Your task to perform on an android device: find which apps use the phone's location Image 0: 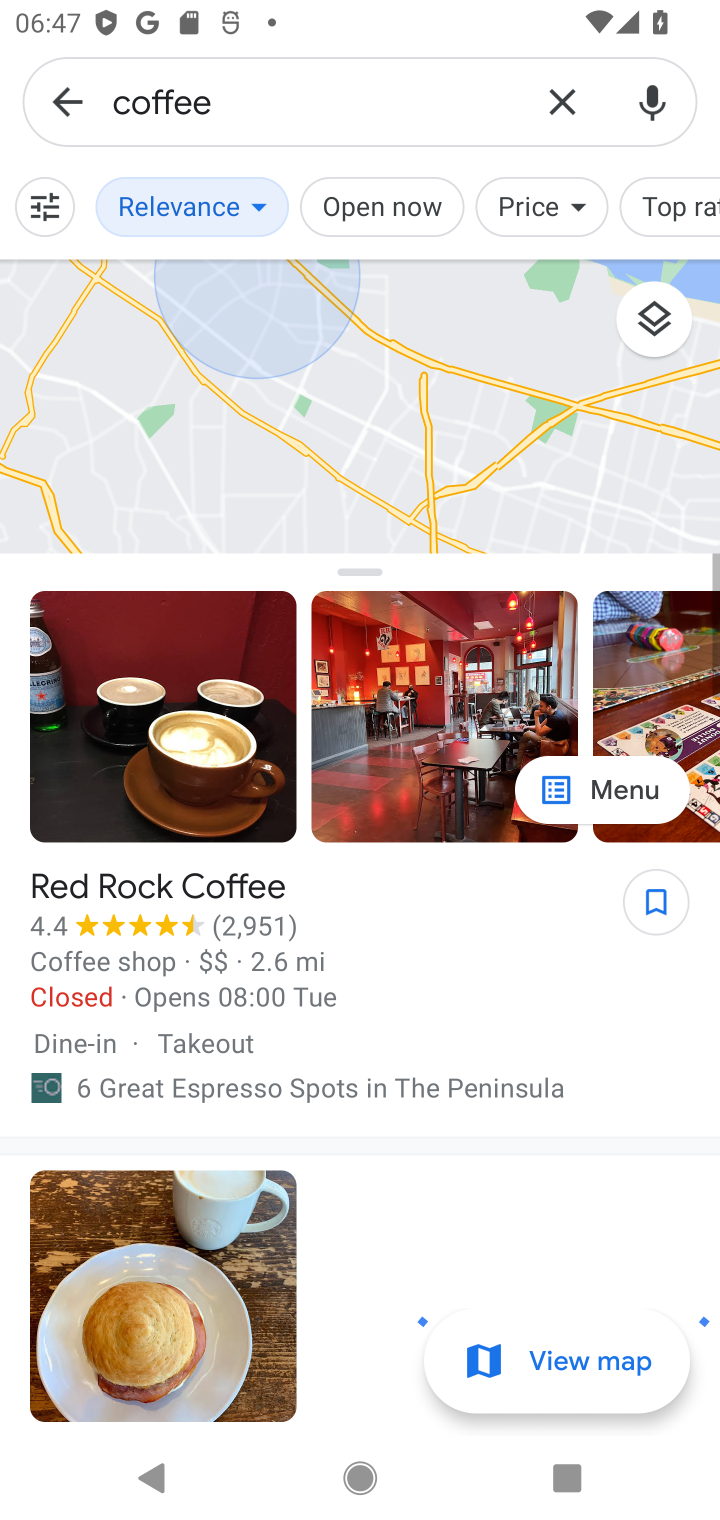
Step 0: press home button
Your task to perform on an android device: find which apps use the phone's location Image 1: 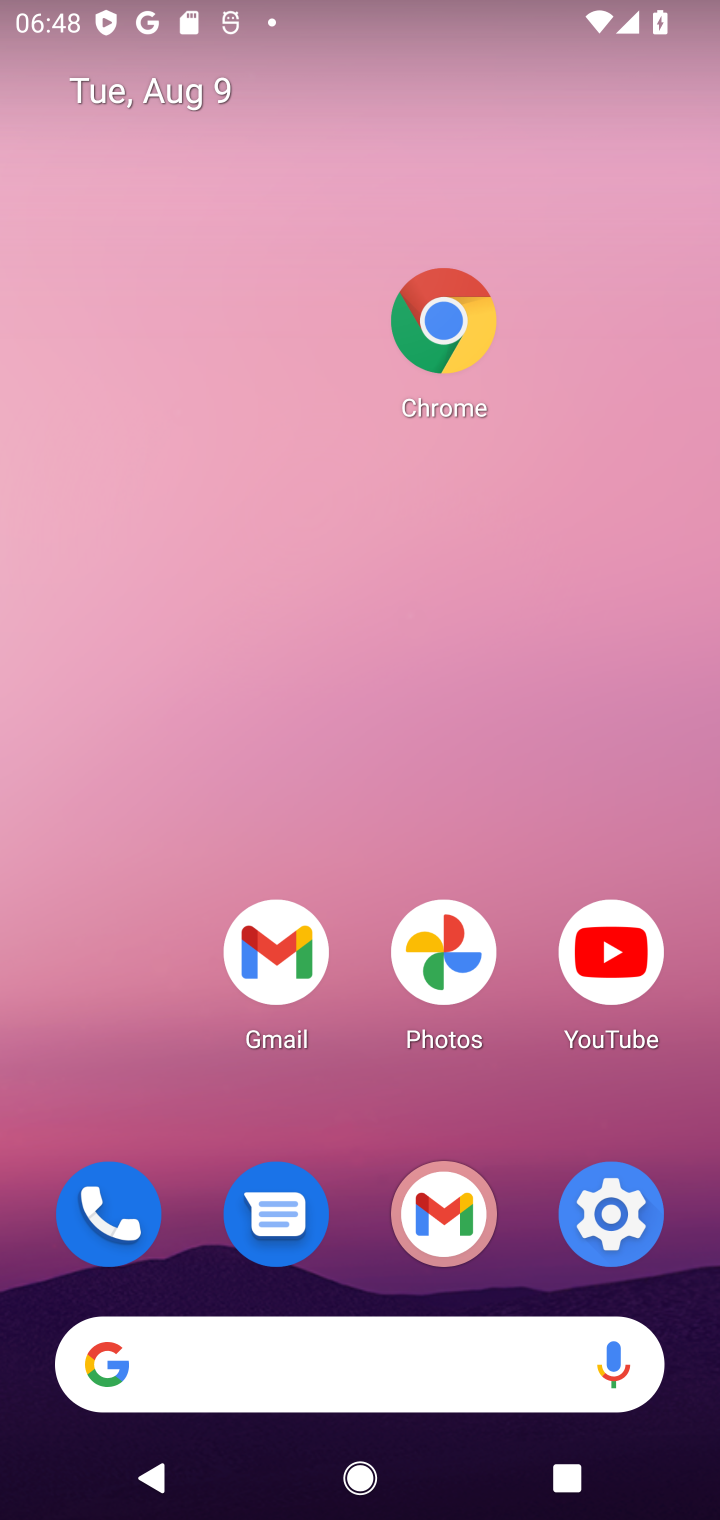
Step 1: click (610, 1207)
Your task to perform on an android device: find which apps use the phone's location Image 2: 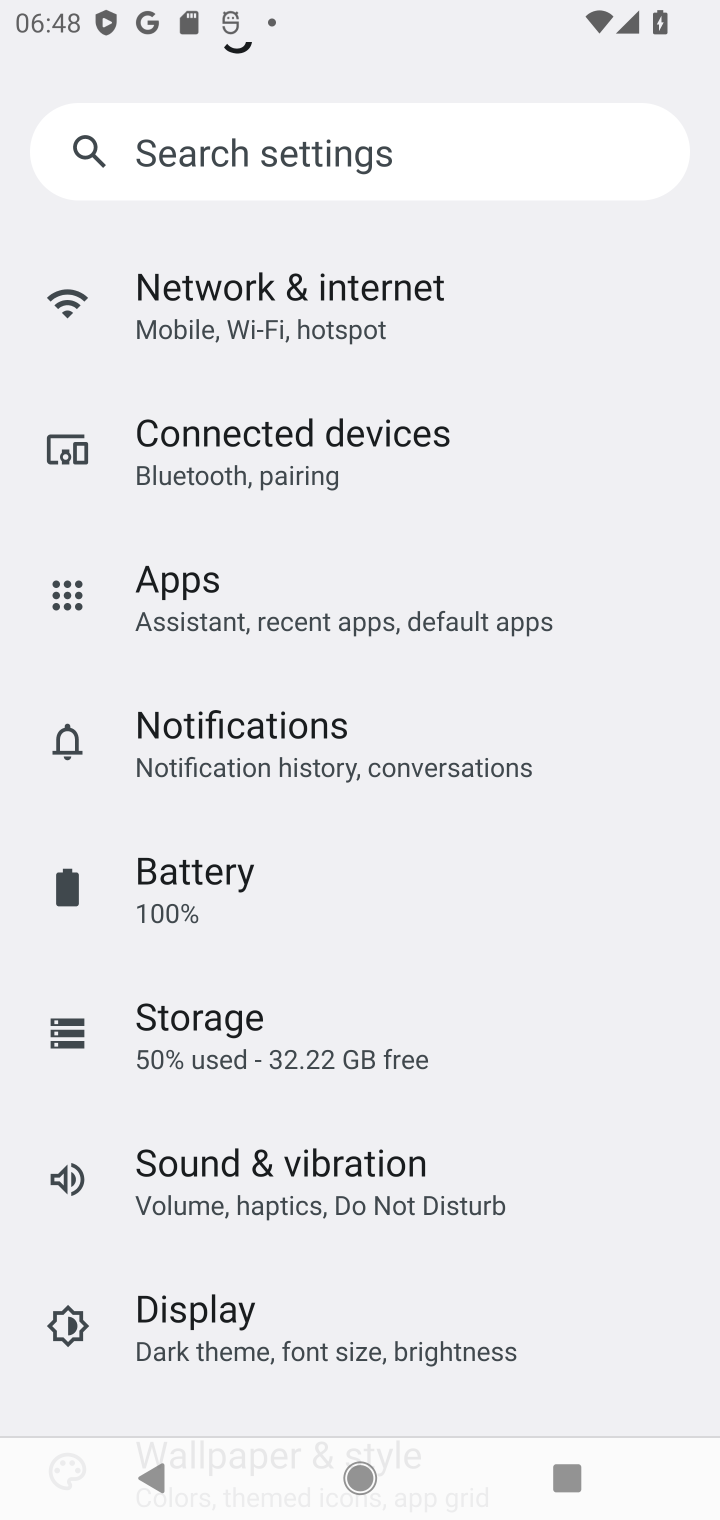
Step 2: click (354, 147)
Your task to perform on an android device: find which apps use the phone's location Image 3: 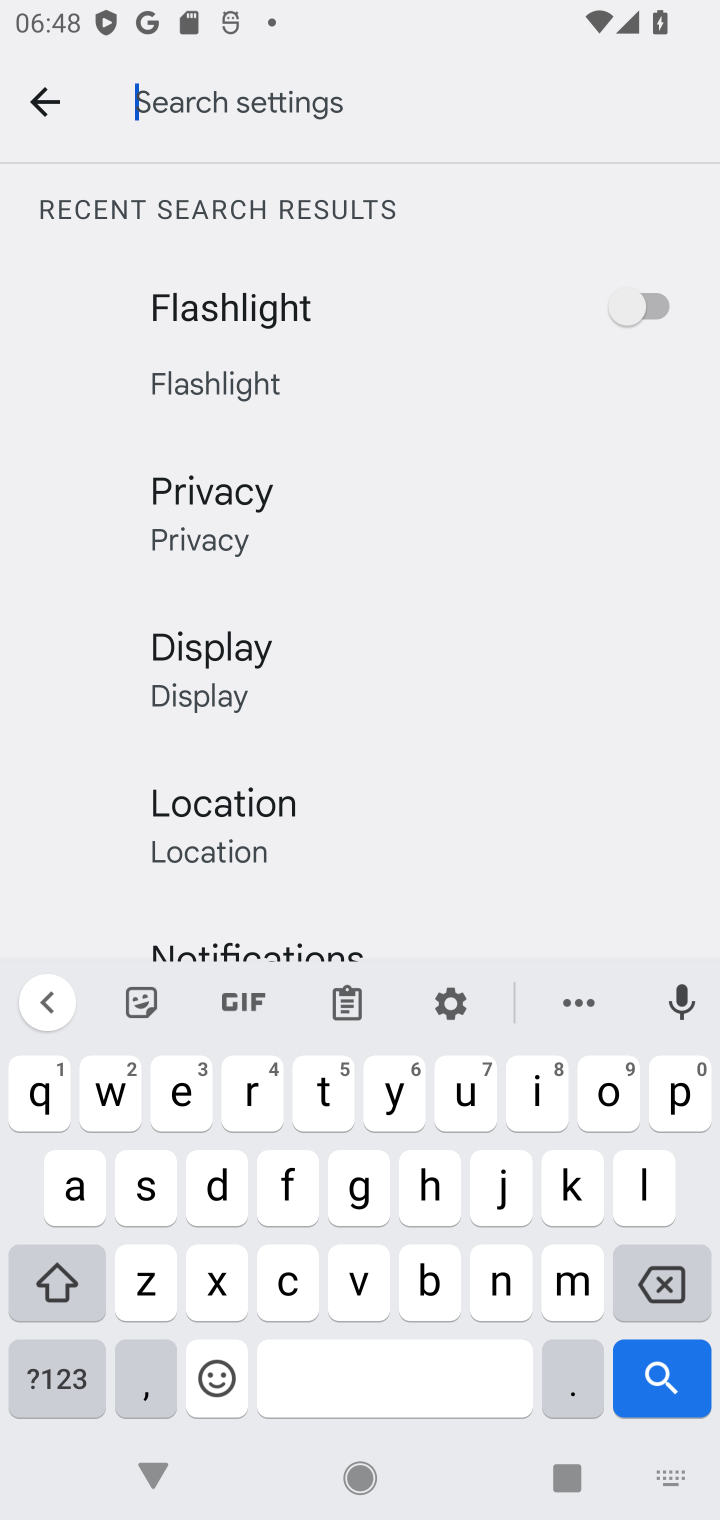
Step 3: click (241, 837)
Your task to perform on an android device: find which apps use the phone's location Image 4: 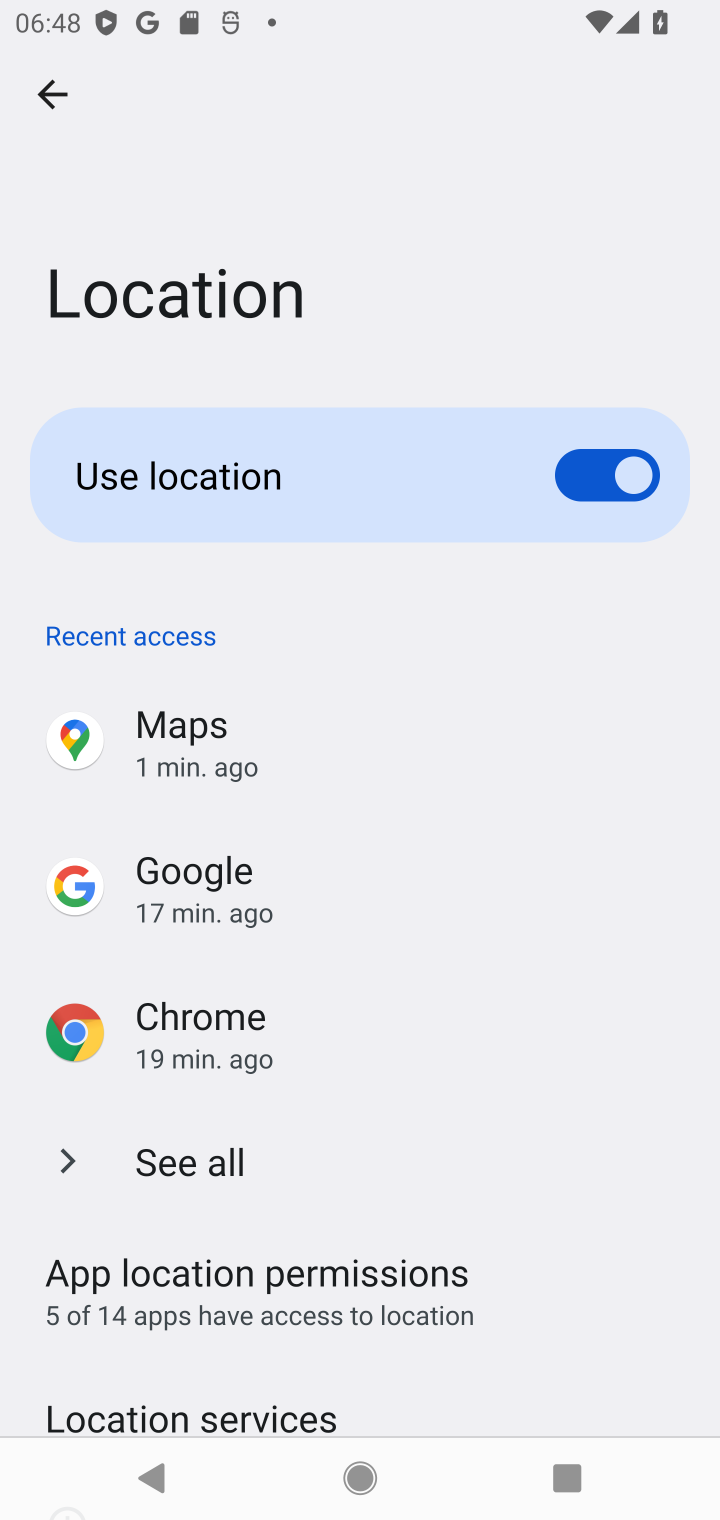
Step 4: click (167, 1400)
Your task to perform on an android device: find which apps use the phone's location Image 5: 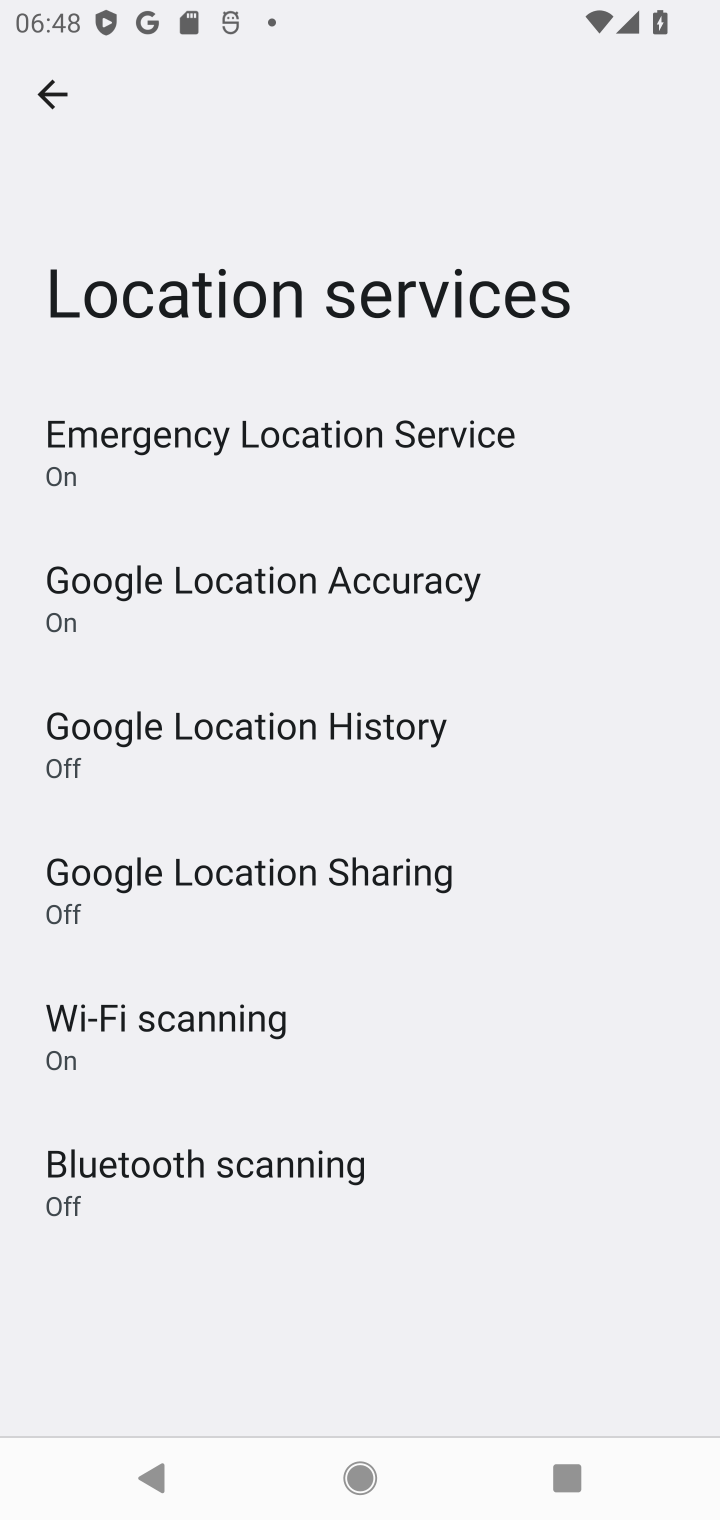
Step 5: click (63, 94)
Your task to perform on an android device: find which apps use the phone's location Image 6: 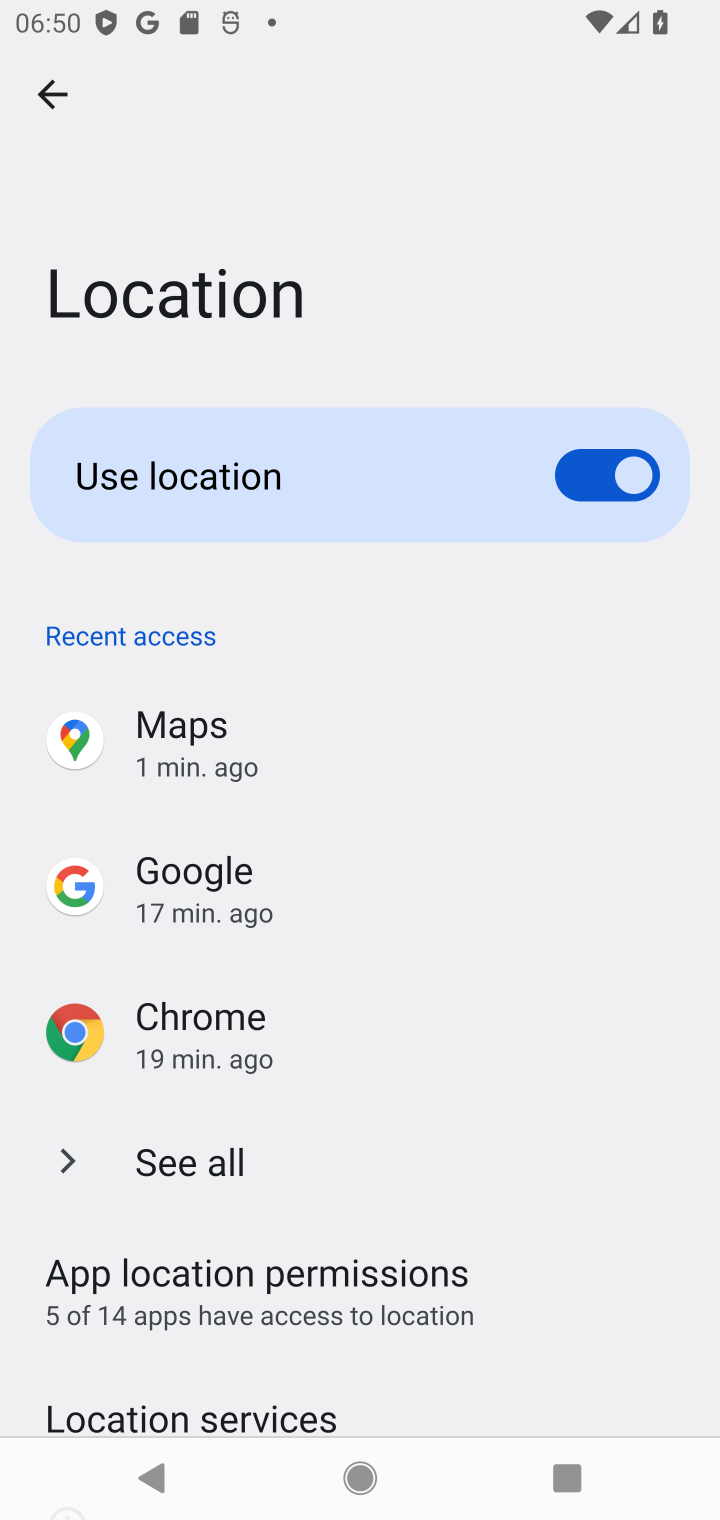
Step 6: task complete